Your task to perform on an android device: manage bookmarks in the chrome app Image 0: 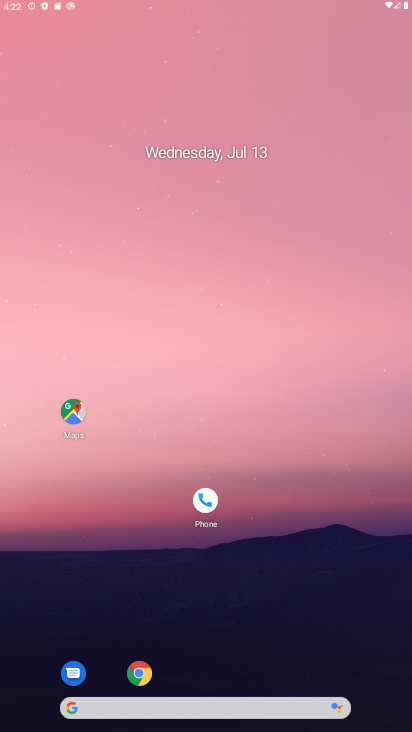
Step 0: press back button
Your task to perform on an android device: manage bookmarks in the chrome app Image 1: 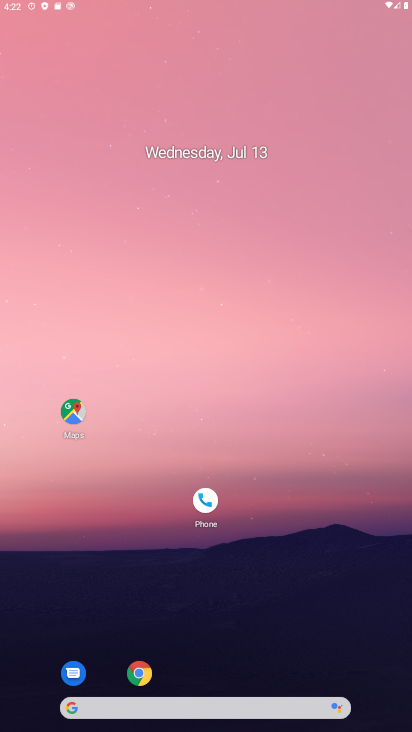
Step 1: click (235, 154)
Your task to perform on an android device: manage bookmarks in the chrome app Image 2: 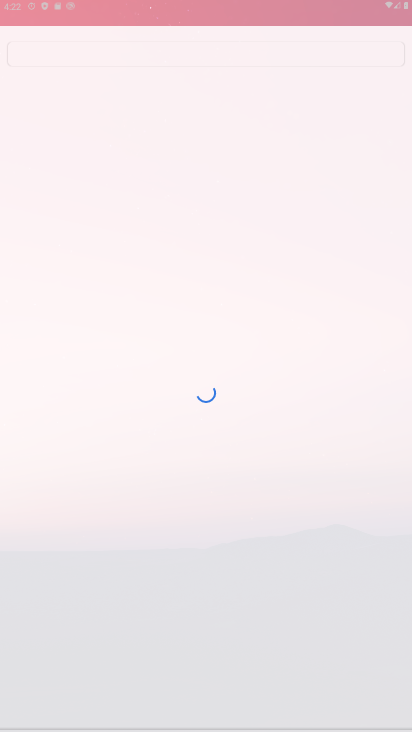
Step 2: drag from (339, 610) to (197, 189)
Your task to perform on an android device: manage bookmarks in the chrome app Image 3: 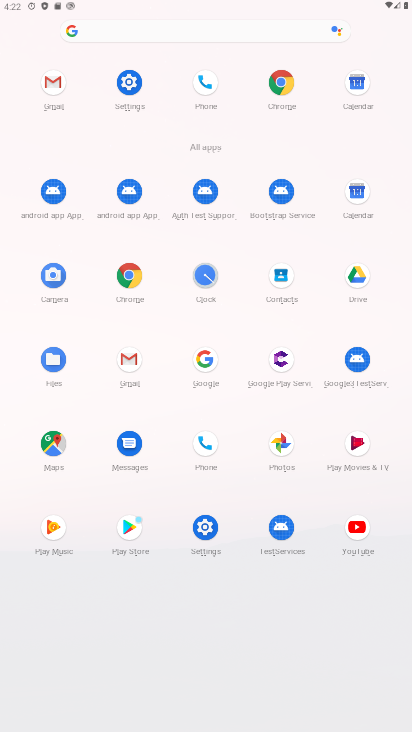
Step 3: click (131, 267)
Your task to perform on an android device: manage bookmarks in the chrome app Image 4: 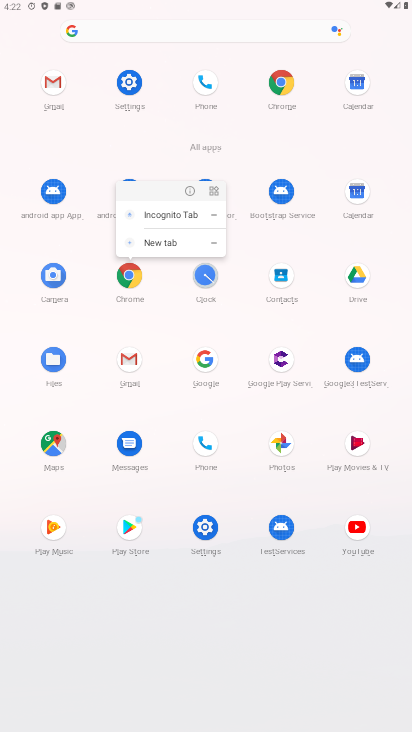
Step 4: click (131, 272)
Your task to perform on an android device: manage bookmarks in the chrome app Image 5: 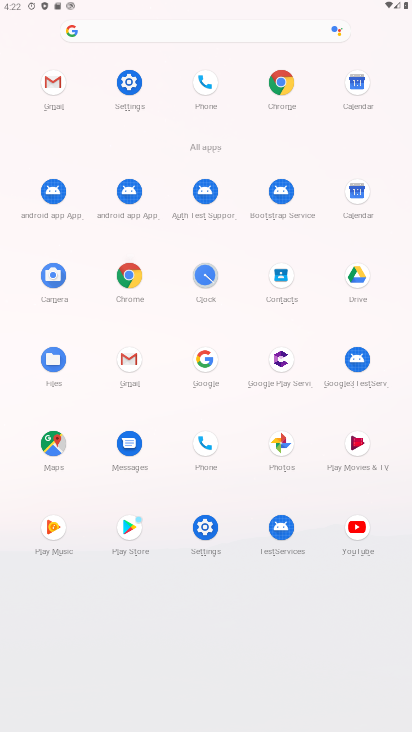
Step 5: click (133, 274)
Your task to perform on an android device: manage bookmarks in the chrome app Image 6: 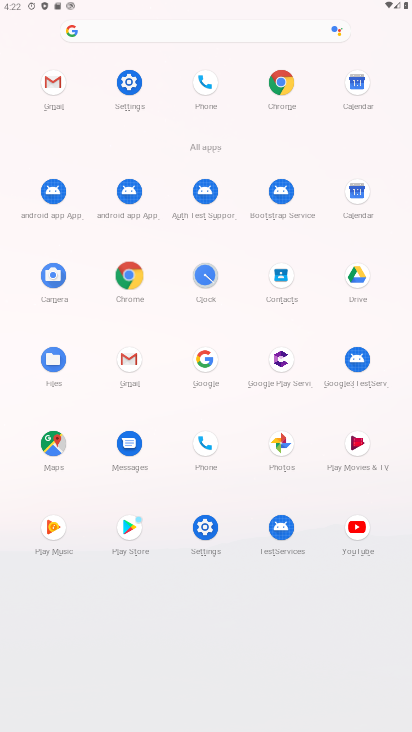
Step 6: click (133, 274)
Your task to perform on an android device: manage bookmarks in the chrome app Image 7: 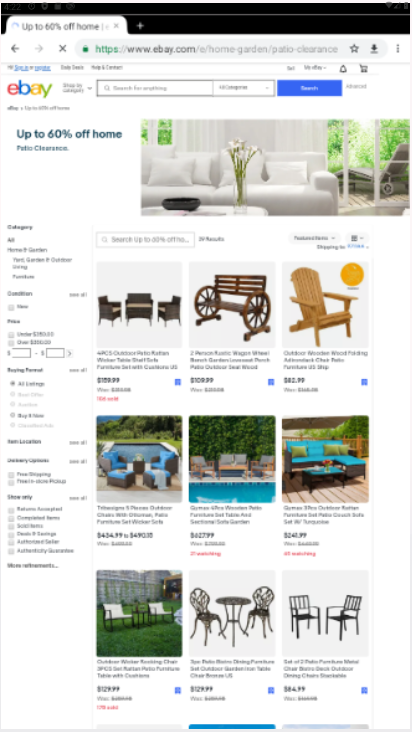
Step 7: click (133, 274)
Your task to perform on an android device: manage bookmarks in the chrome app Image 8: 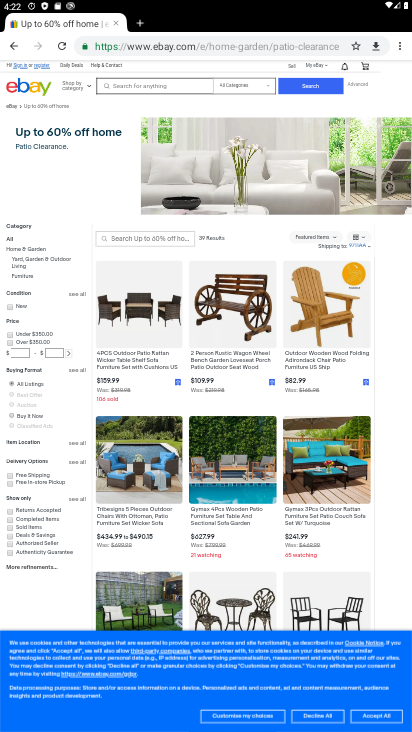
Step 8: drag from (398, 45) to (322, 88)
Your task to perform on an android device: manage bookmarks in the chrome app Image 9: 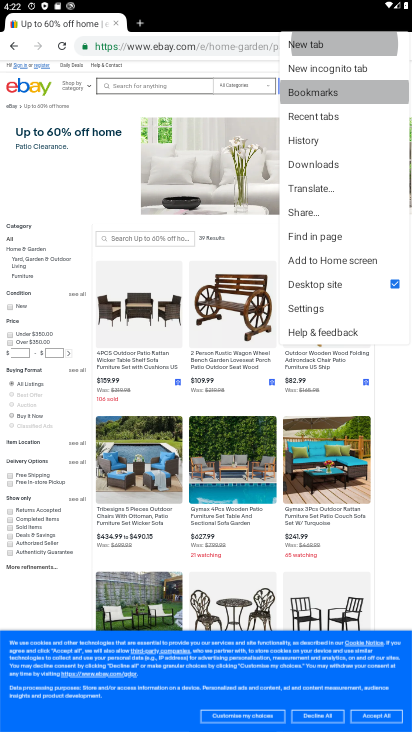
Step 9: click (322, 87)
Your task to perform on an android device: manage bookmarks in the chrome app Image 10: 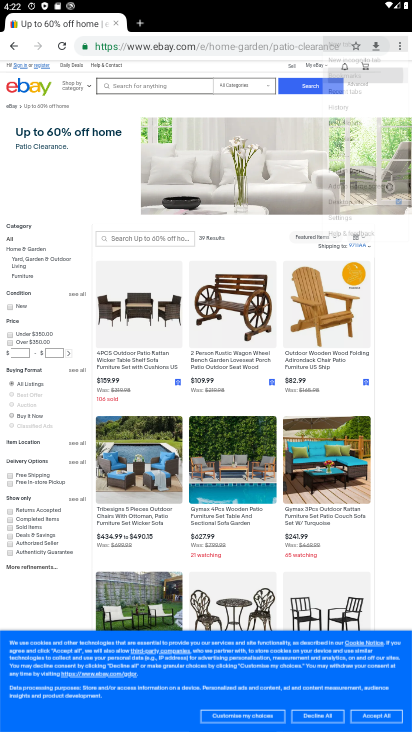
Step 10: click (322, 87)
Your task to perform on an android device: manage bookmarks in the chrome app Image 11: 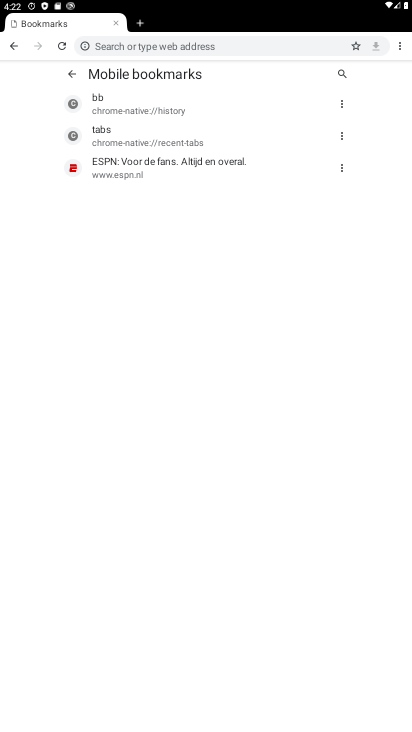
Step 11: task complete